Your task to perform on an android device: turn on location history Image 0: 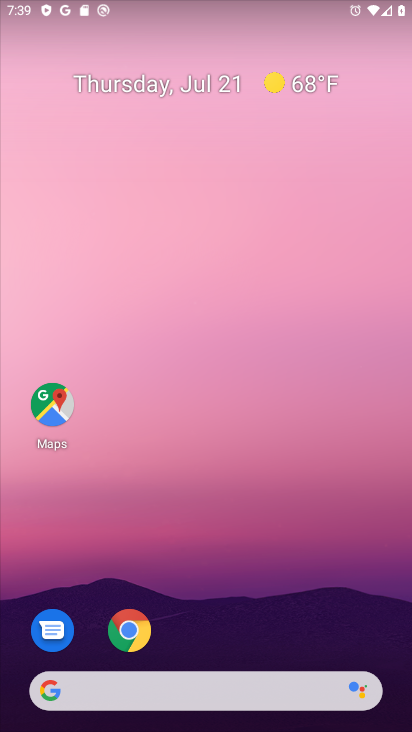
Step 0: drag from (292, 657) to (319, 160)
Your task to perform on an android device: turn on location history Image 1: 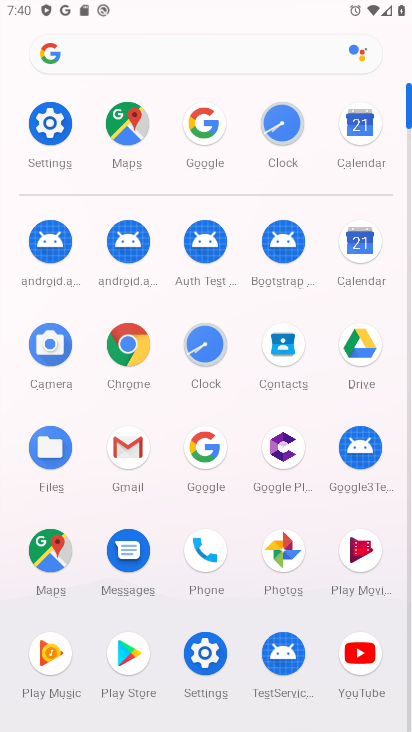
Step 1: click (32, 115)
Your task to perform on an android device: turn on location history Image 2: 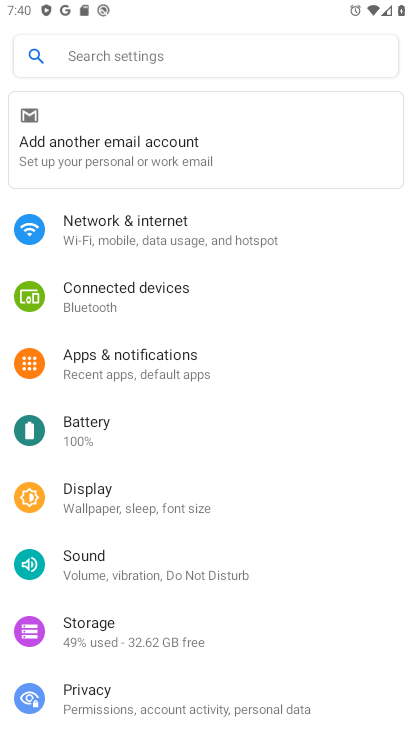
Step 2: drag from (145, 690) to (170, 342)
Your task to perform on an android device: turn on location history Image 3: 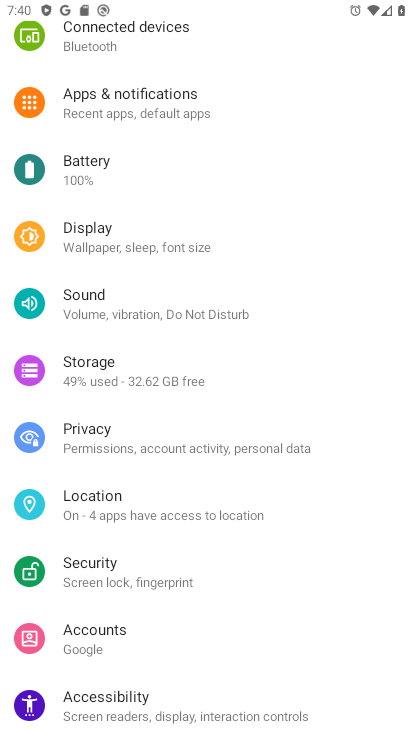
Step 3: click (78, 508)
Your task to perform on an android device: turn on location history Image 4: 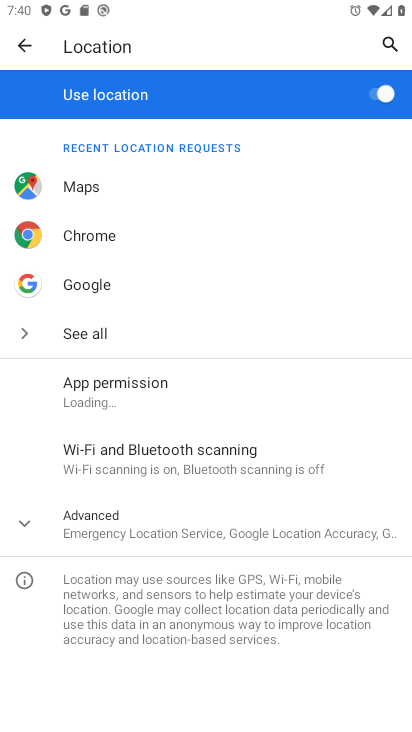
Step 4: click (113, 515)
Your task to perform on an android device: turn on location history Image 5: 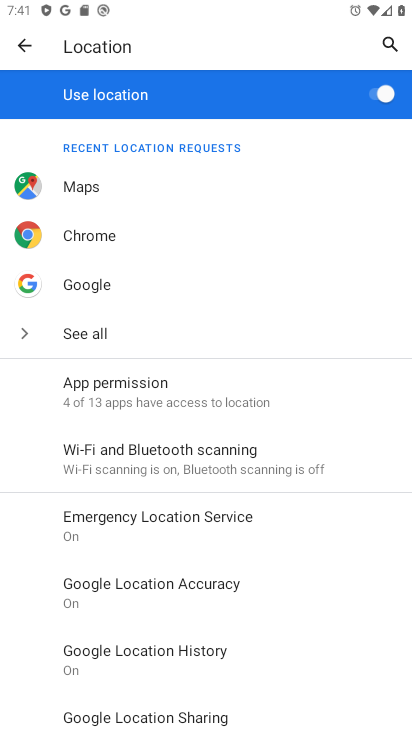
Step 5: click (155, 657)
Your task to perform on an android device: turn on location history Image 6: 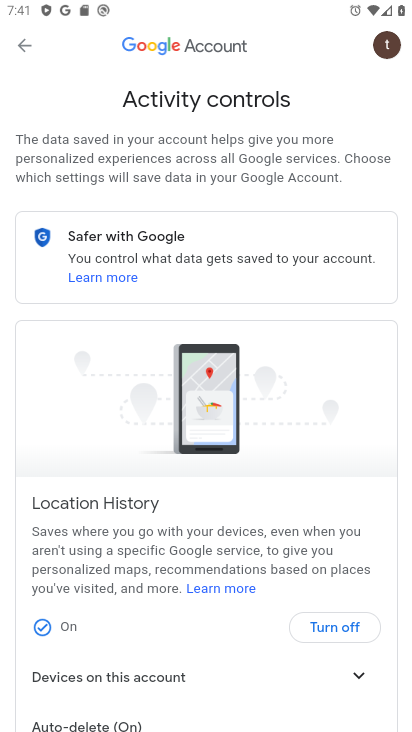
Step 6: task complete